Your task to perform on an android device: turn on sleep mode Image 0: 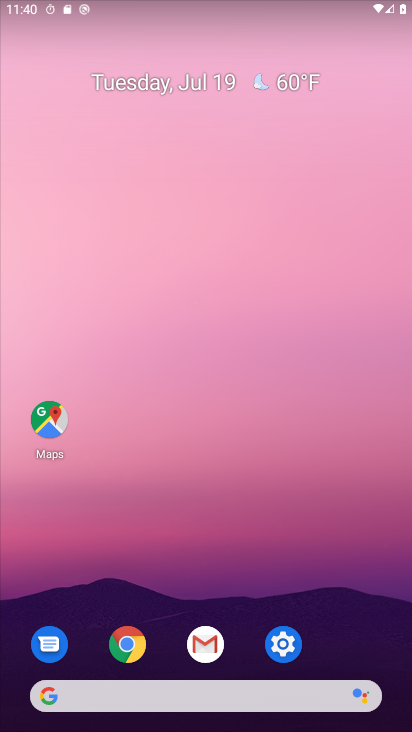
Step 0: click (274, 644)
Your task to perform on an android device: turn on sleep mode Image 1: 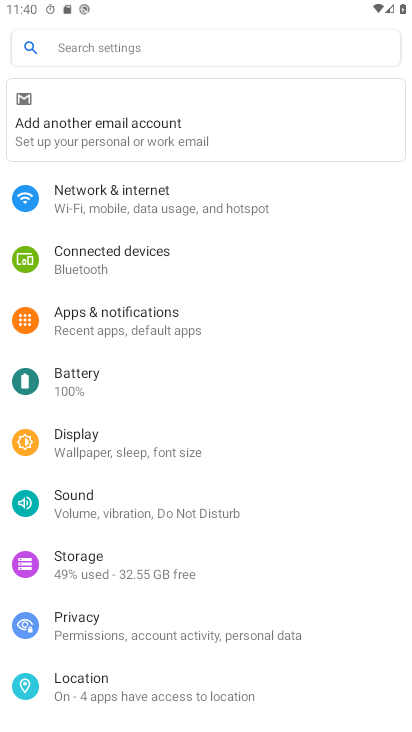
Step 1: click (87, 49)
Your task to perform on an android device: turn on sleep mode Image 2: 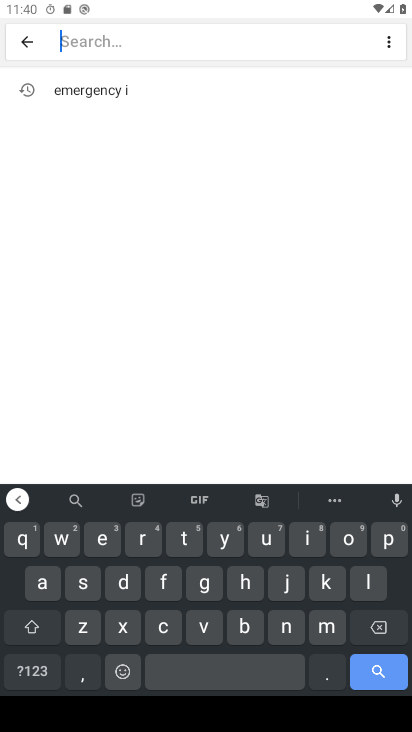
Step 2: click (74, 589)
Your task to perform on an android device: turn on sleep mode Image 3: 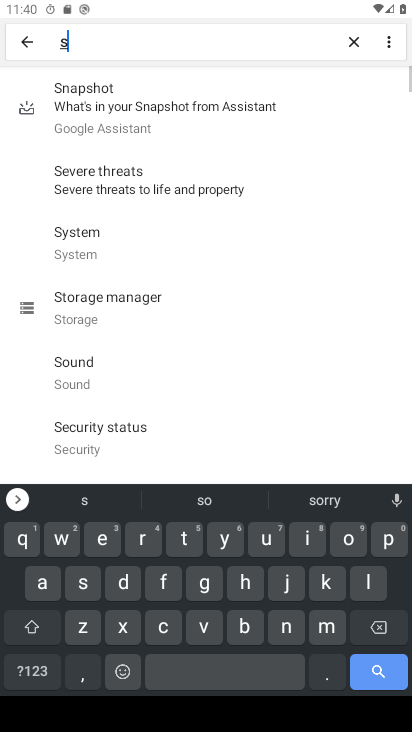
Step 3: click (366, 596)
Your task to perform on an android device: turn on sleep mode Image 4: 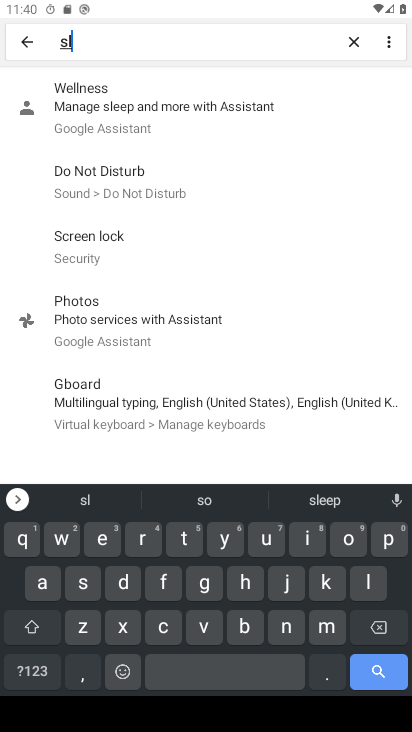
Step 4: click (135, 171)
Your task to perform on an android device: turn on sleep mode Image 5: 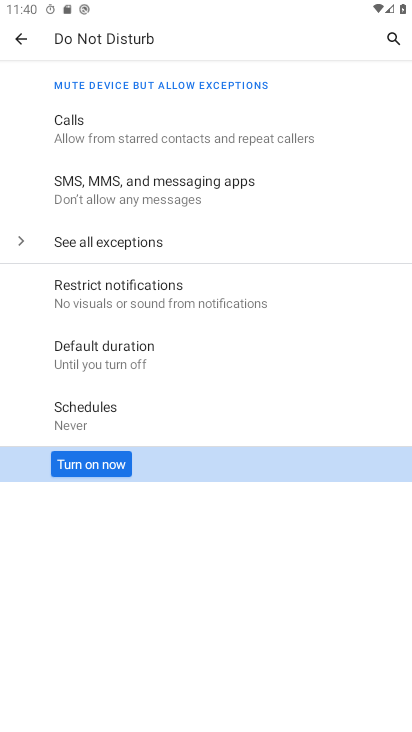
Step 5: click (97, 466)
Your task to perform on an android device: turn on sleep mode Image 6: 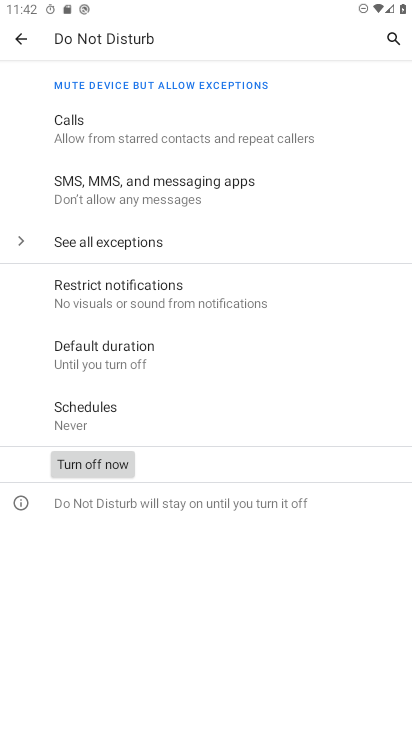
Step 6: task complete